Your task to perform on an android device: change alarm snooze length Image 0: 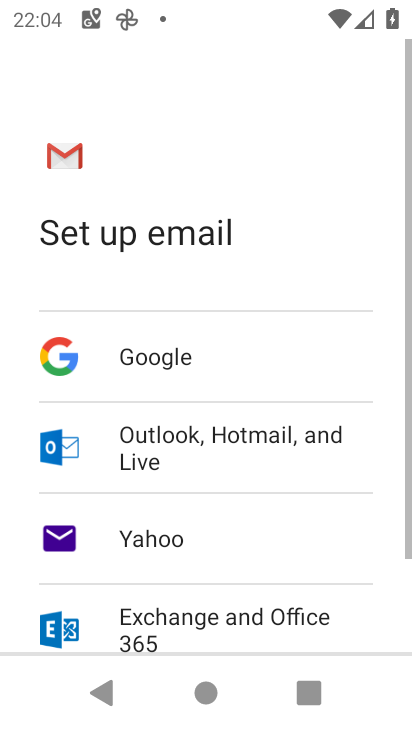
Step 0: press home button
Your task to perform on an android device: change alarm snooze length Image 1: 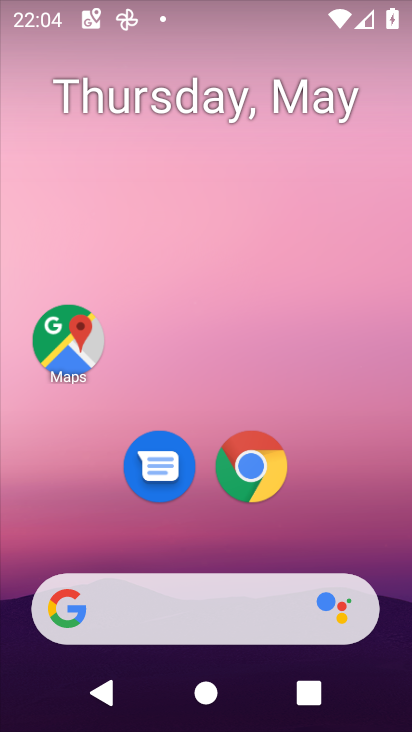
Step 1: drag from (391, 555) to (283, 45)
Your task to perform on an android device: change alarm snooze length Image 2: 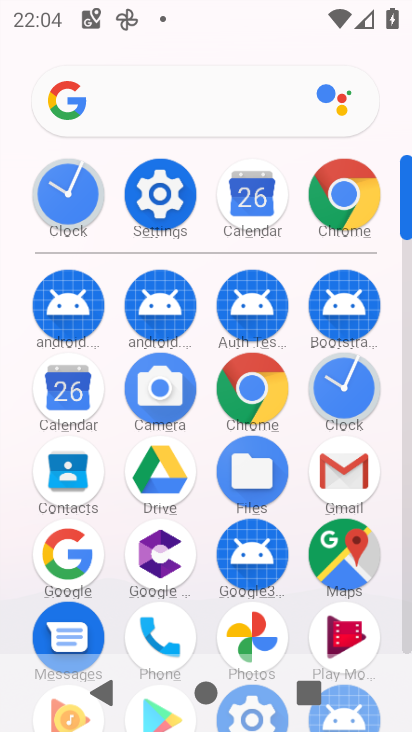
Step 2: click (154, 185)
Your task to perform on an android device: change alarm snooze length Image 3: 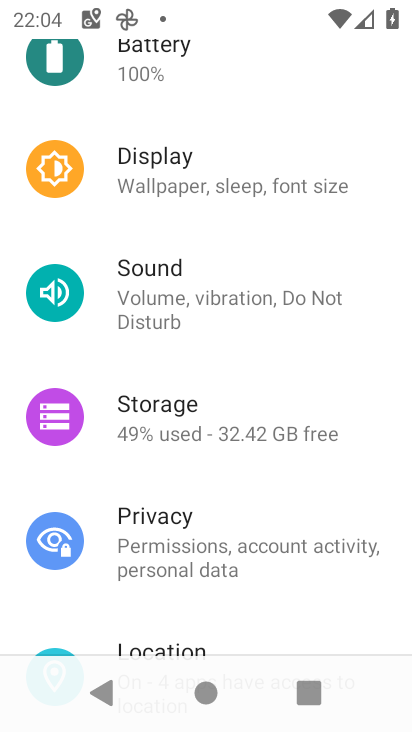
Step 3: drag from (274, 585) to (294, 239)
Your task to perform on an android device: change alarm snooze length Image 4: 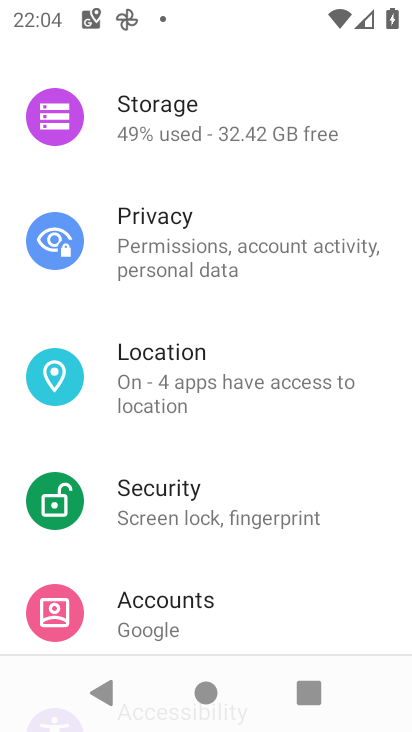
Step 4: drag from (248, 500) to (251, 152)
Your task to perform on an android device: change alarm snooze length Image 5: 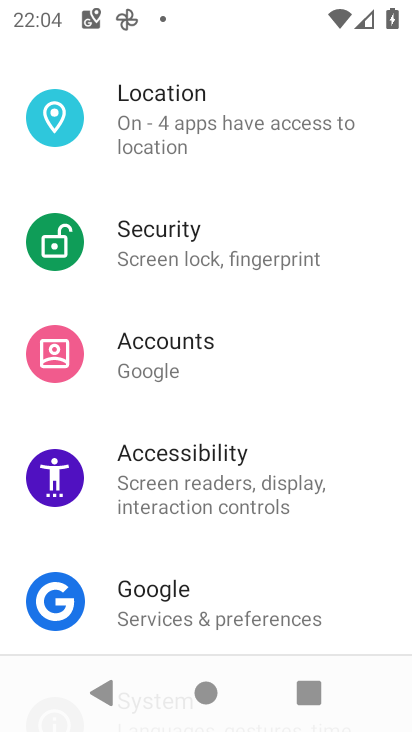
Step 5: click (225, 537)
Your task to perform on an android device: change alarm snooze length Image 6: 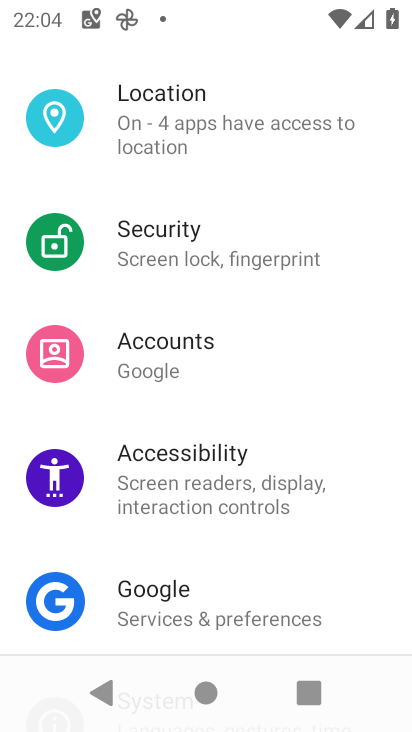
Step 6: drag from (225, 537) to (238, 354)
Your task to perform on an android device: change alarm snooze length Image 7: 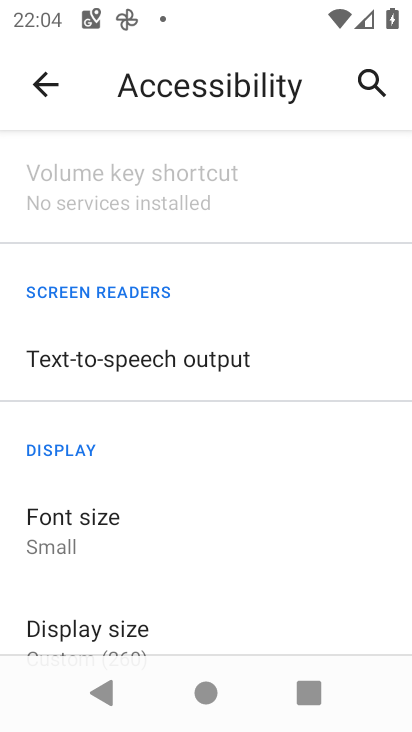
Step 7: press home button
Your task to perform on an android device: change alarm snooze length Image 8: 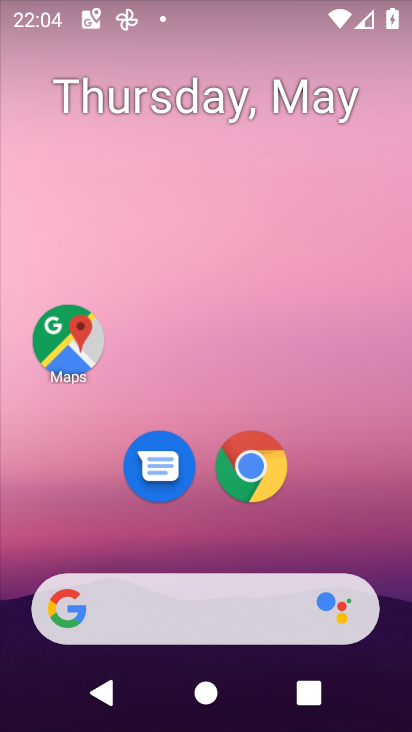
Step 8: drag from (375, 501) to (354, 104)
Your task to perform on an android device: change alarm snooze length Image 9: 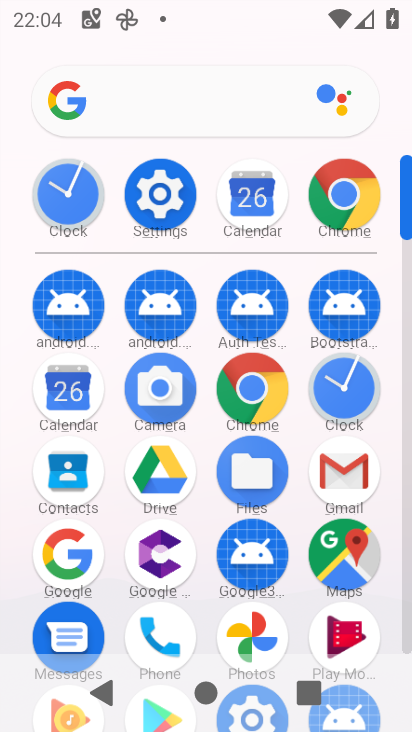
Step 9: click (99, 209)
Your task to perform on an android device: change alarm snooze length Image 10: 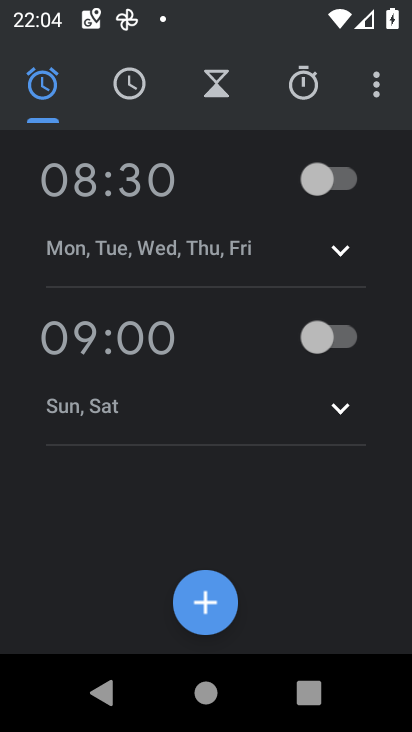
Step 10: click (377, 92)
Your task to perform on an android device: change alarm snooze length Image 11: 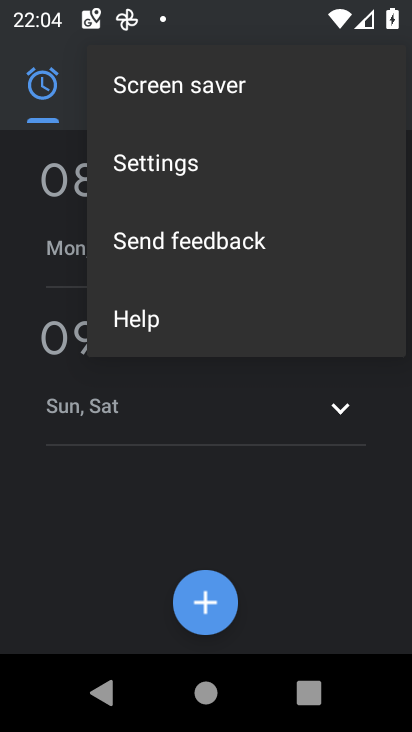
Step 11: click (201, 150)
Your task to perform on an android device: change alarm snooze length Image 12: 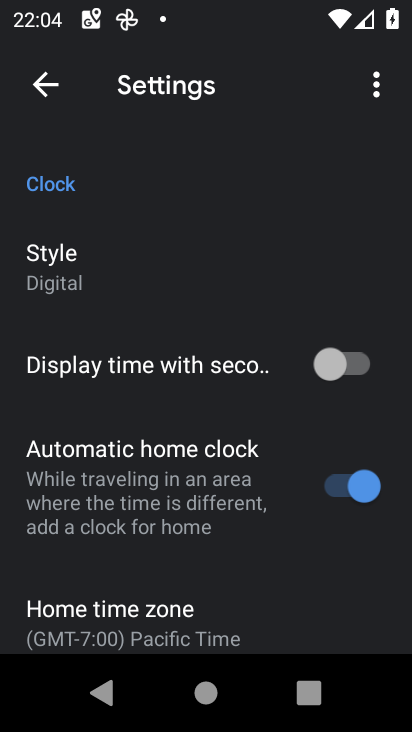
Step 12: drag from (219, 531) to (231, 212)
Your task to perform on an android device: change alarm snooze length Image 13: 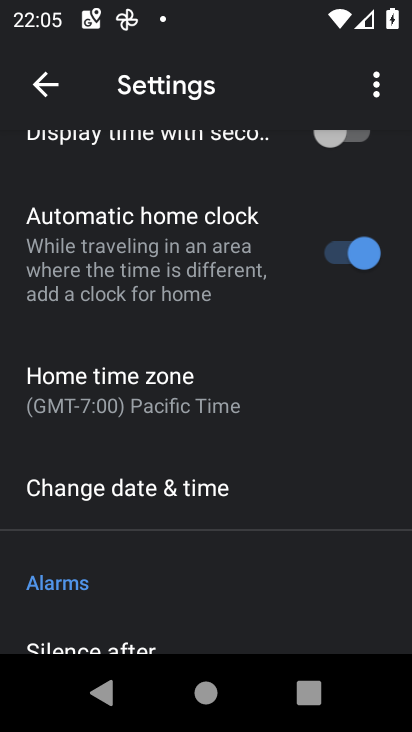
Step 13: click (163, 479)
Your task to perform on an android device: change alarm snooze length Image 14: 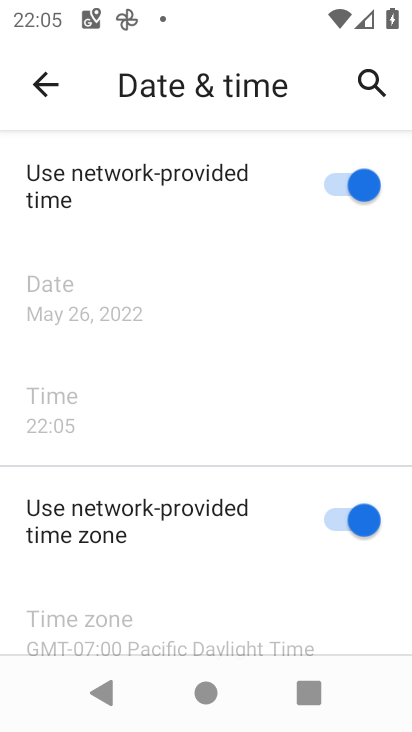
Step 14: task complete